Your task to perform on an android device: open app "Messages" Image 0: 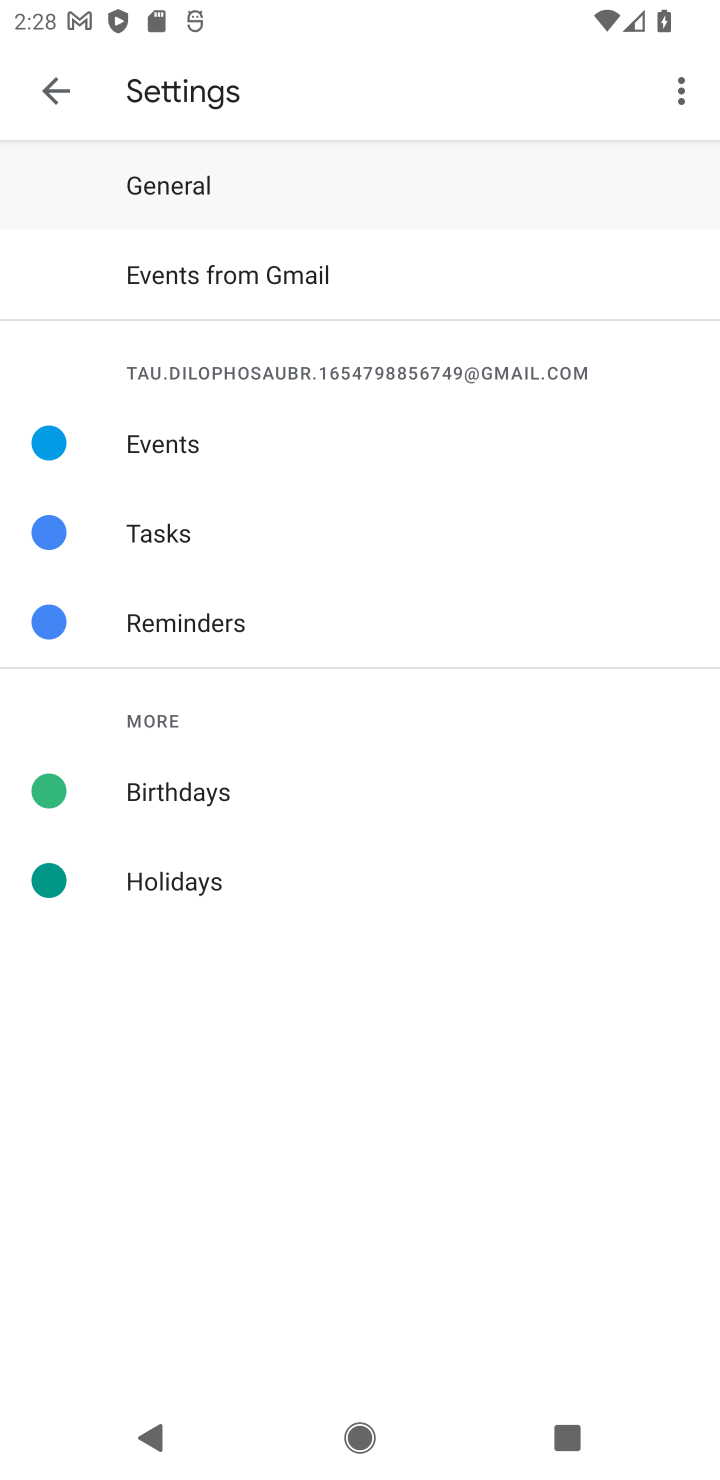
Step 0: press home button
Your task to perform on an android device: open app "Messages" Image 1: 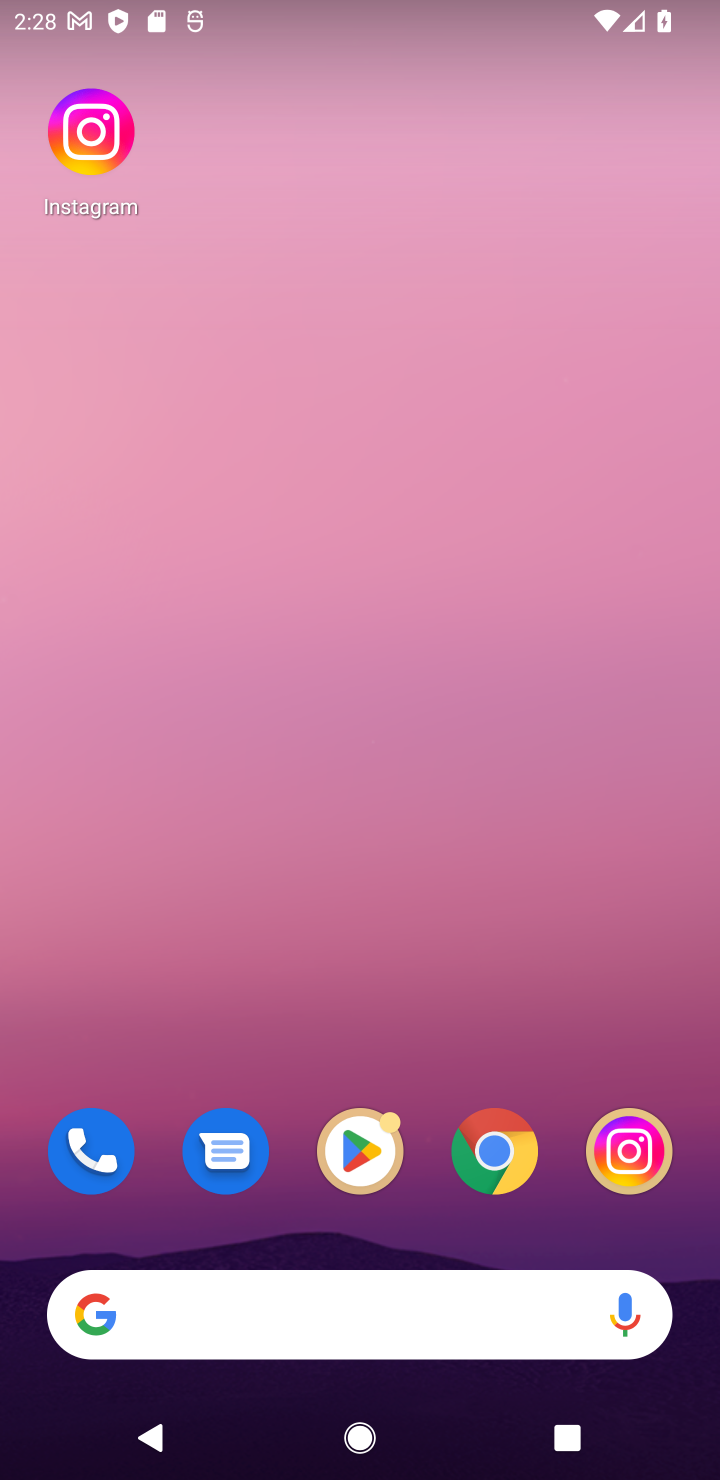
Step 1: click (369, 1154)
Your task to perform on an android device: open app "Messages" Image 2: 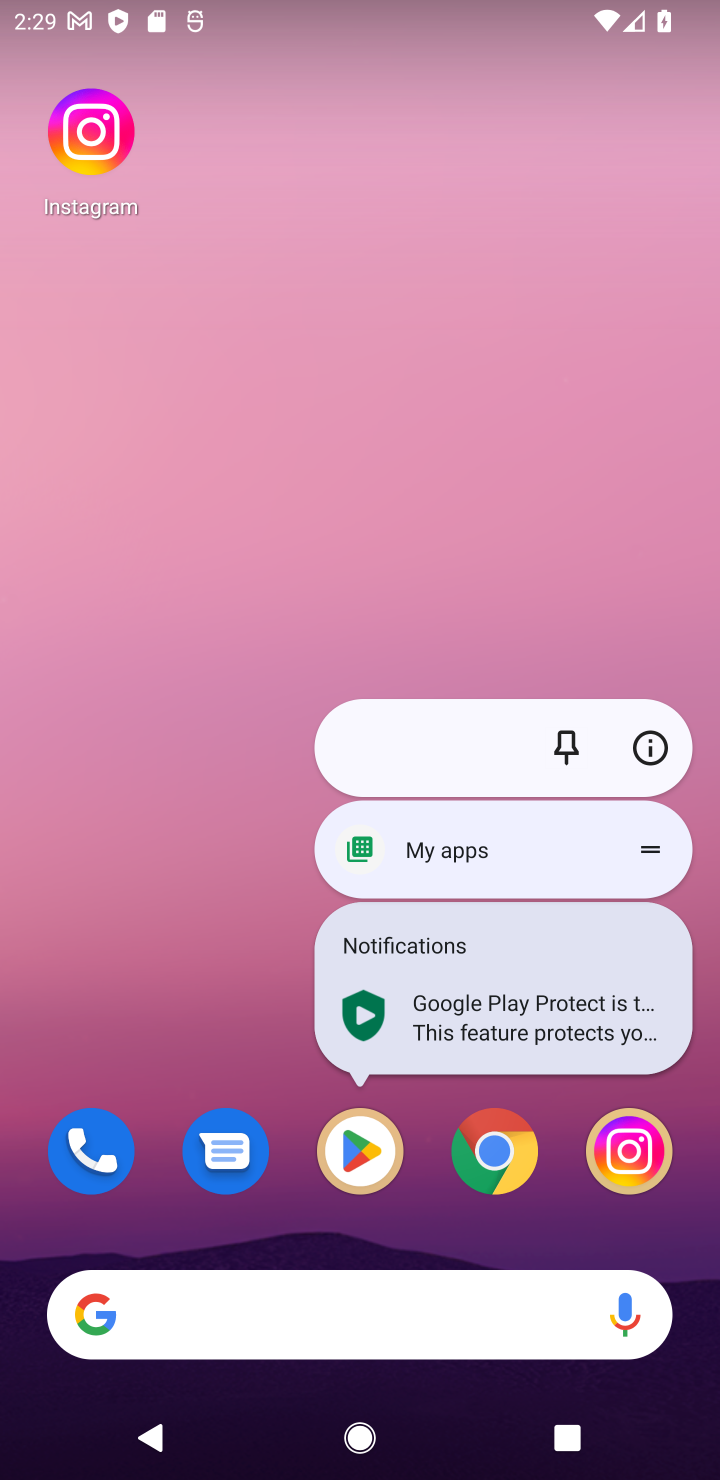
Step 2: click (365, 1154)
Your task to perform on an android device: open app "Messages" Image 3: 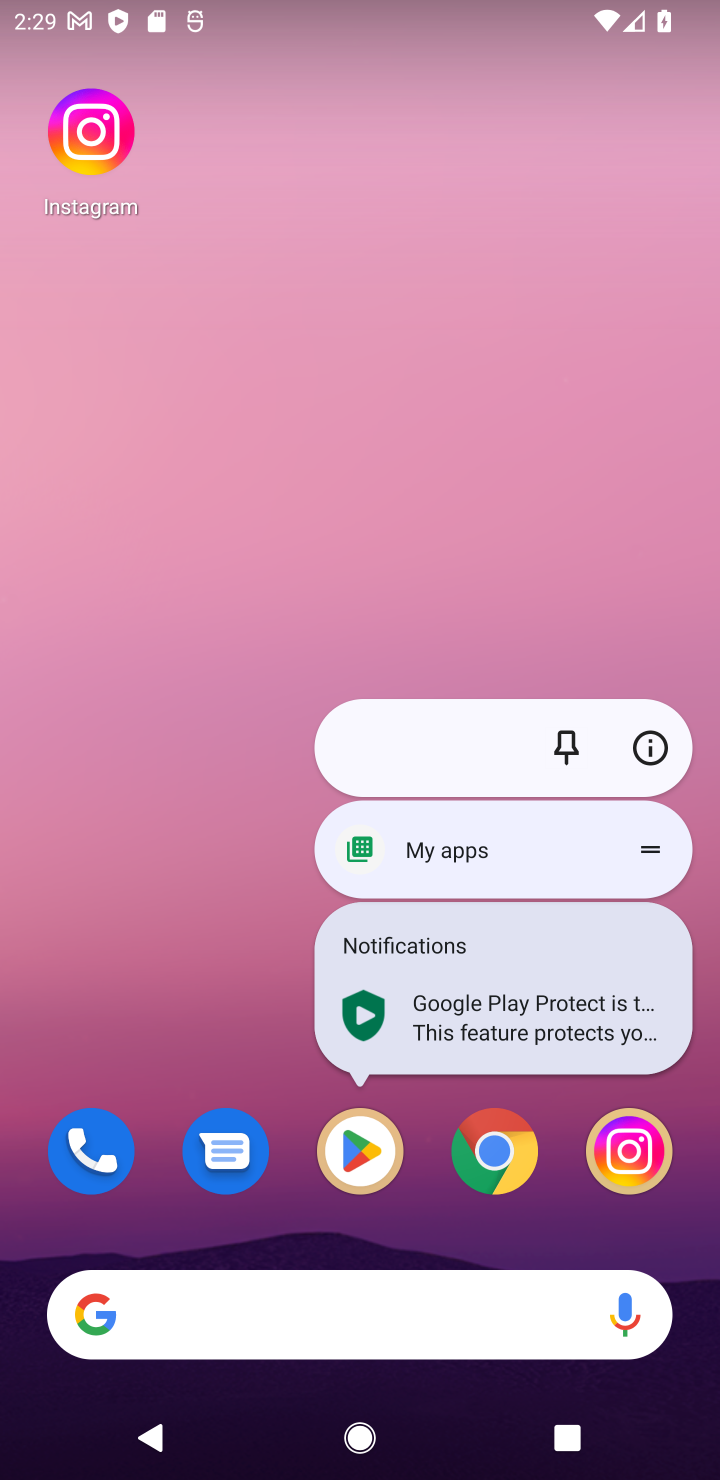
Step 3: click (365, 1159)
Your task to perform on an android device: open app "Messages" Image 4: 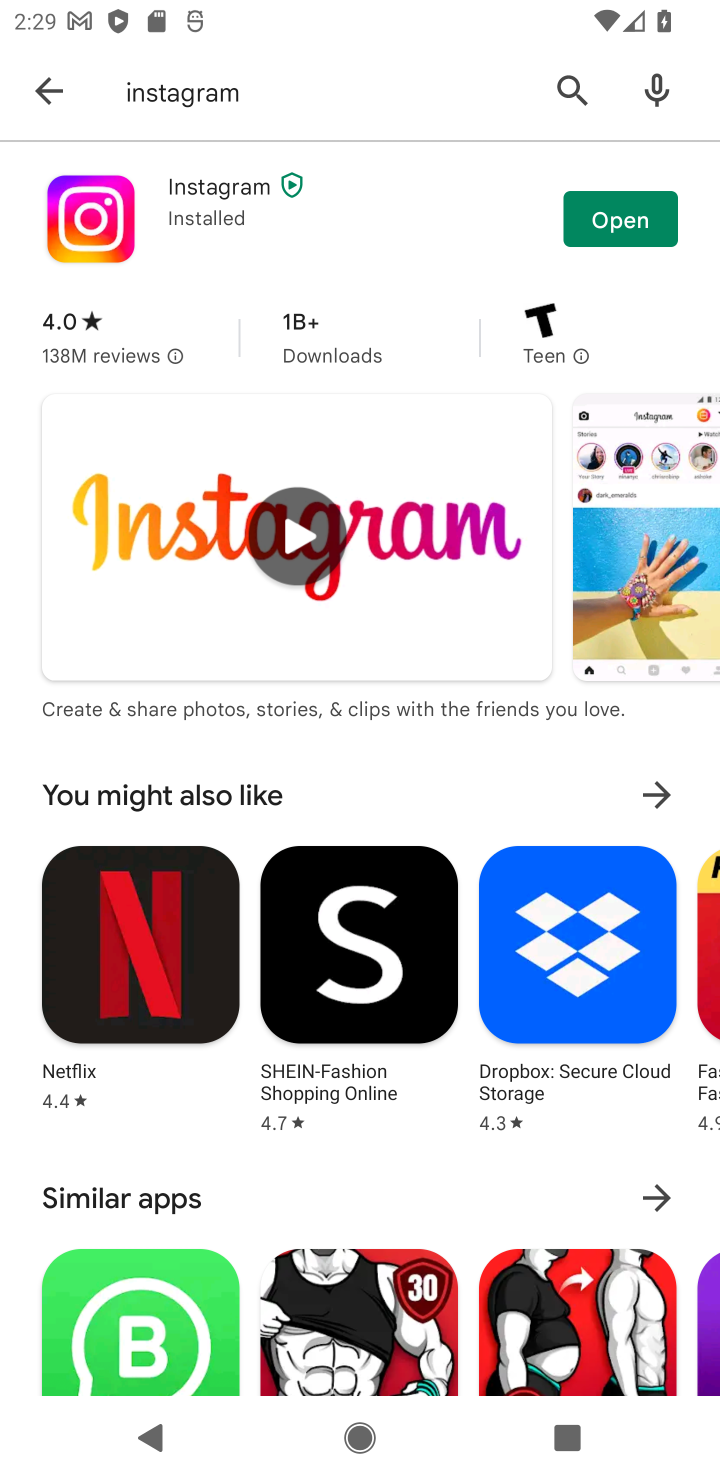
Step 4: click (565, 85)
Your task to perform on an android device: open app "Messages" Image 5: 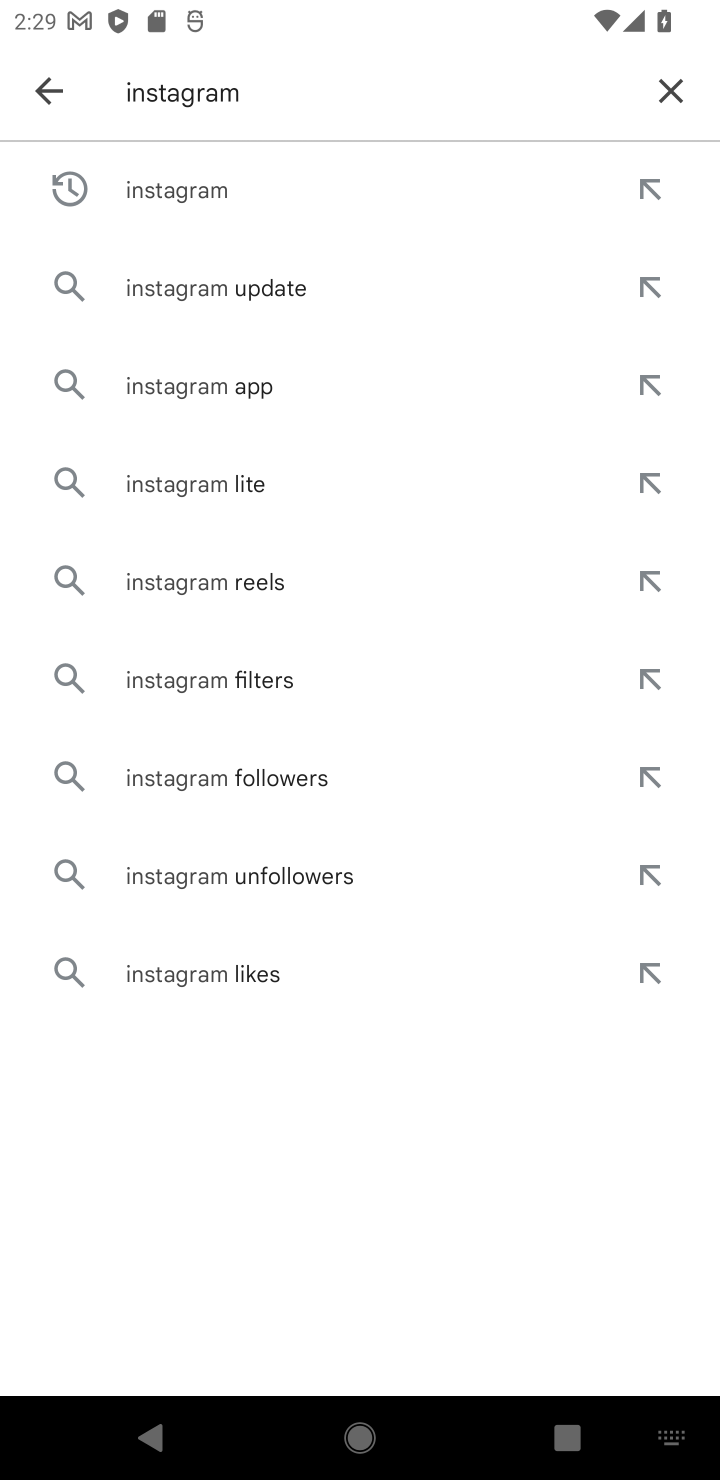
Step 5: click (673, 79)
Your task to perform on an android device: open app "Messages" Image 6: 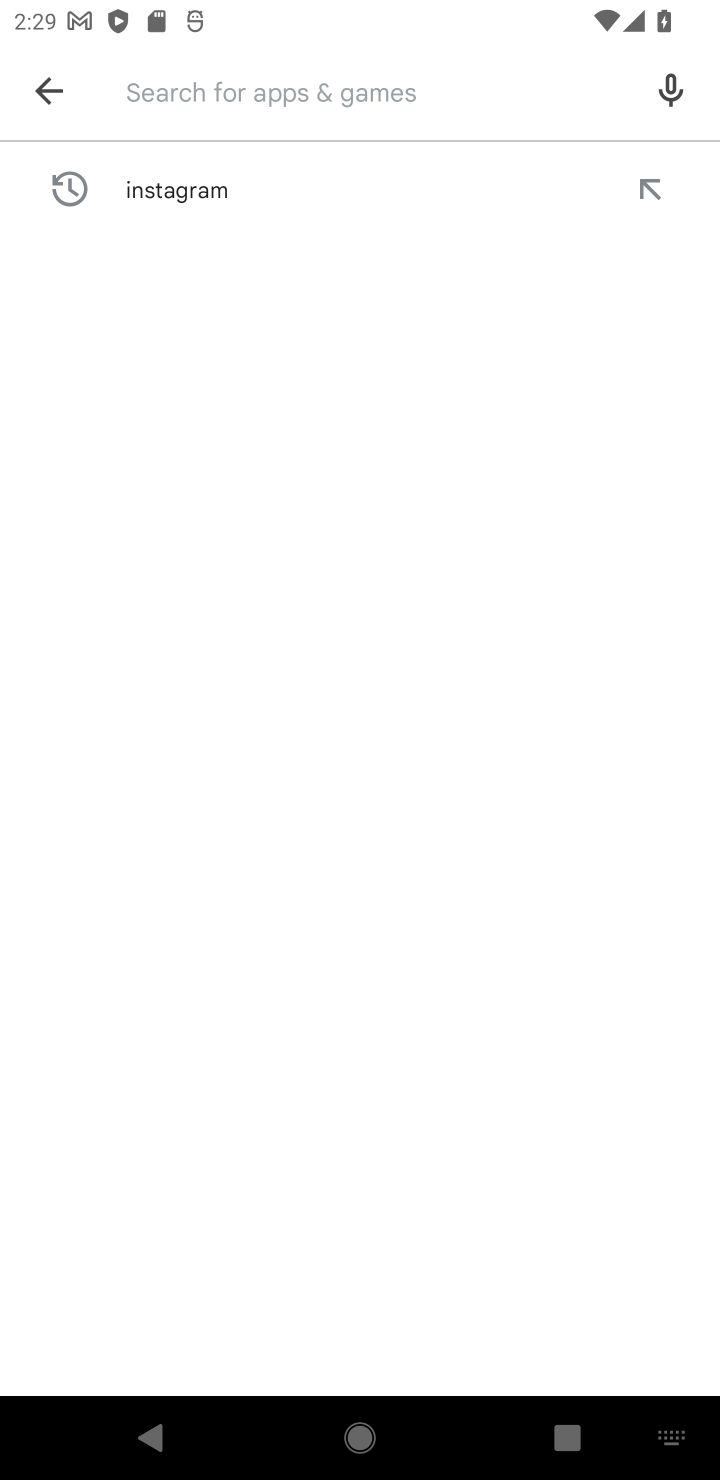
Step 6: type "Messages"
Your task to perform on an android device: open app "Messages" Image 7: 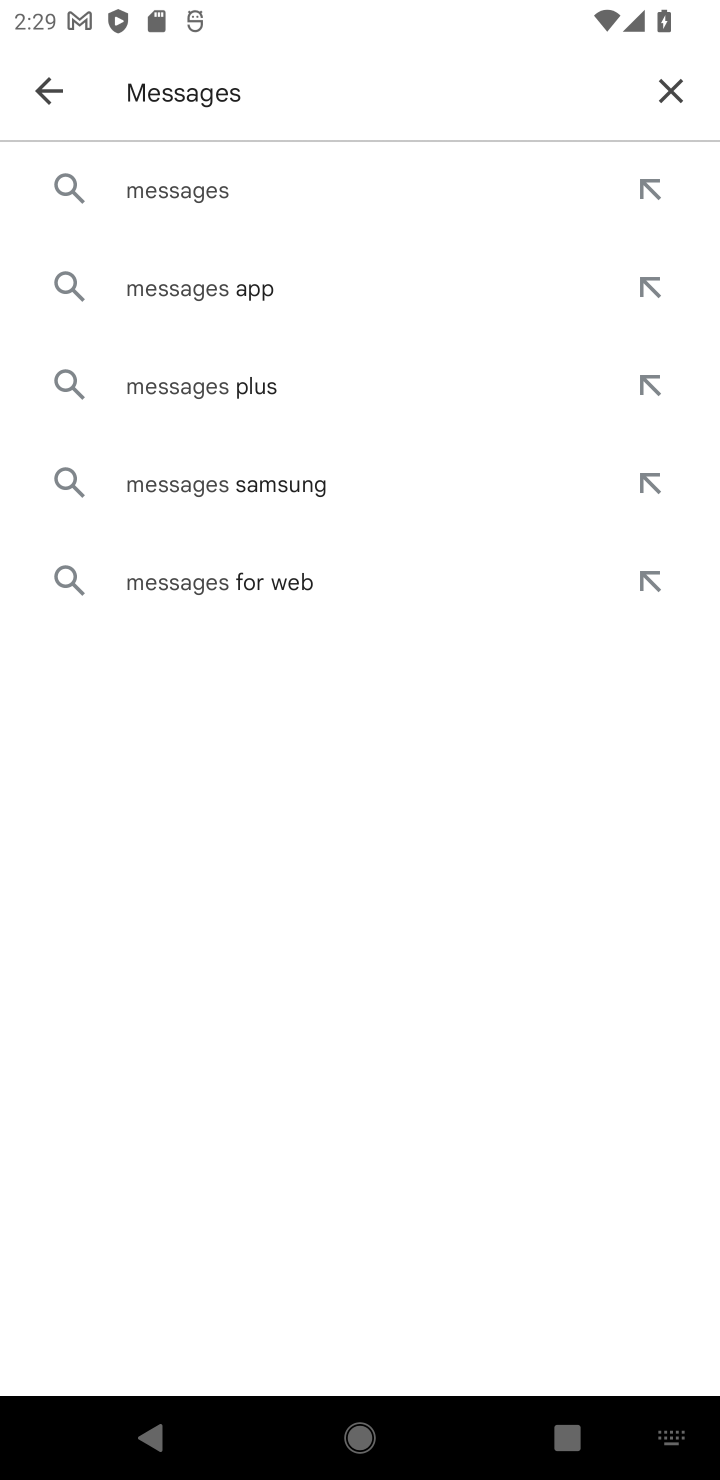
Step 7: click (183, 186)
Your task to perform on an android device: open app "Messages" Image 8: 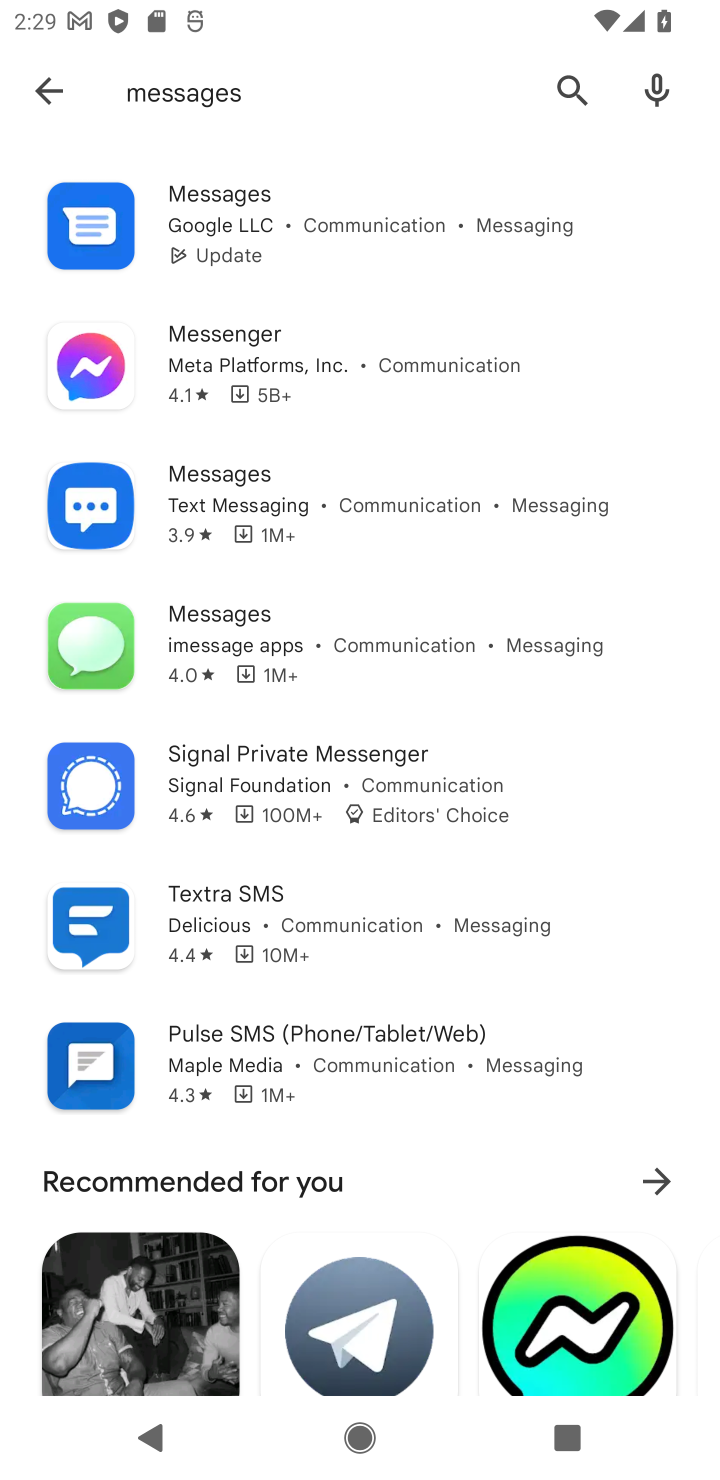
Step 8: click (266, 214)
Your task to perform on an android device: open app "Messages" Image 9: 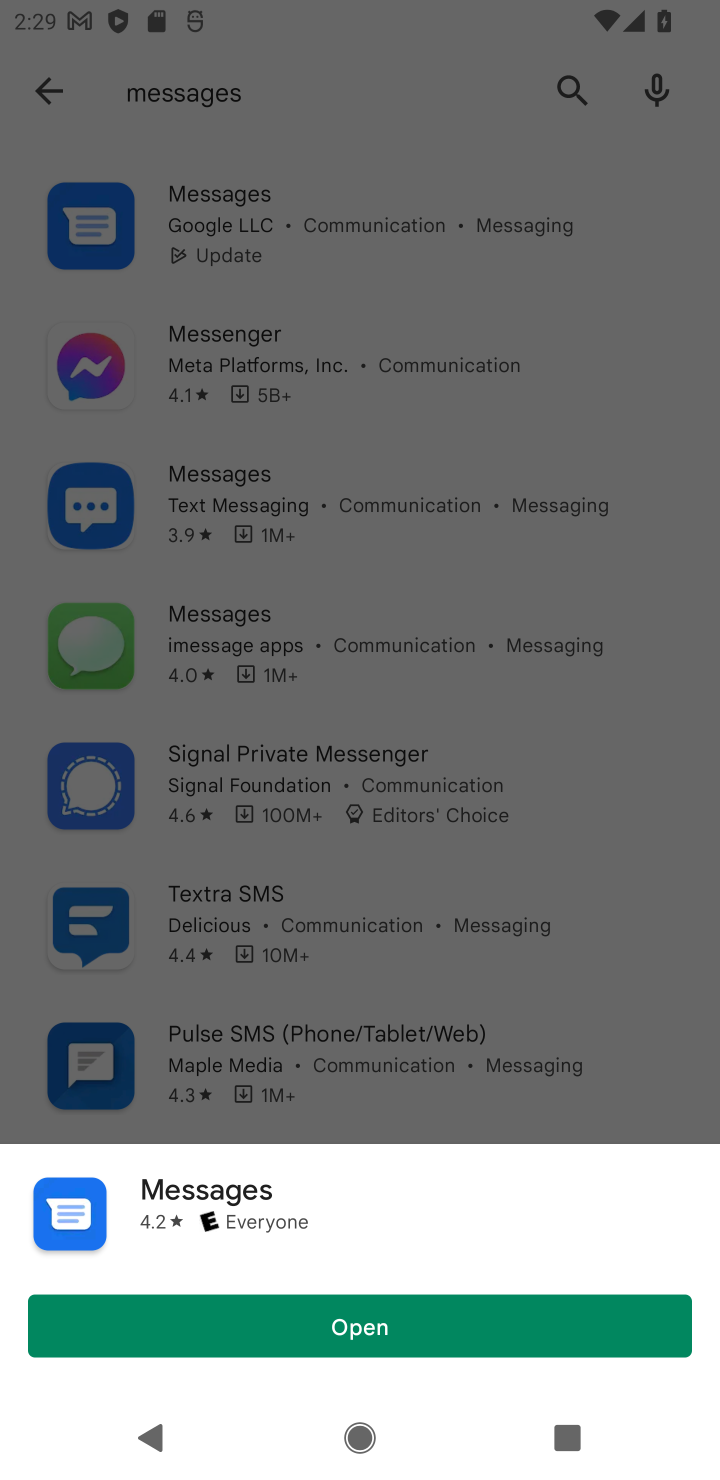
Step 9: click (347, 1333)
Your task to perform on an android device: open app "Messages" Image 10: 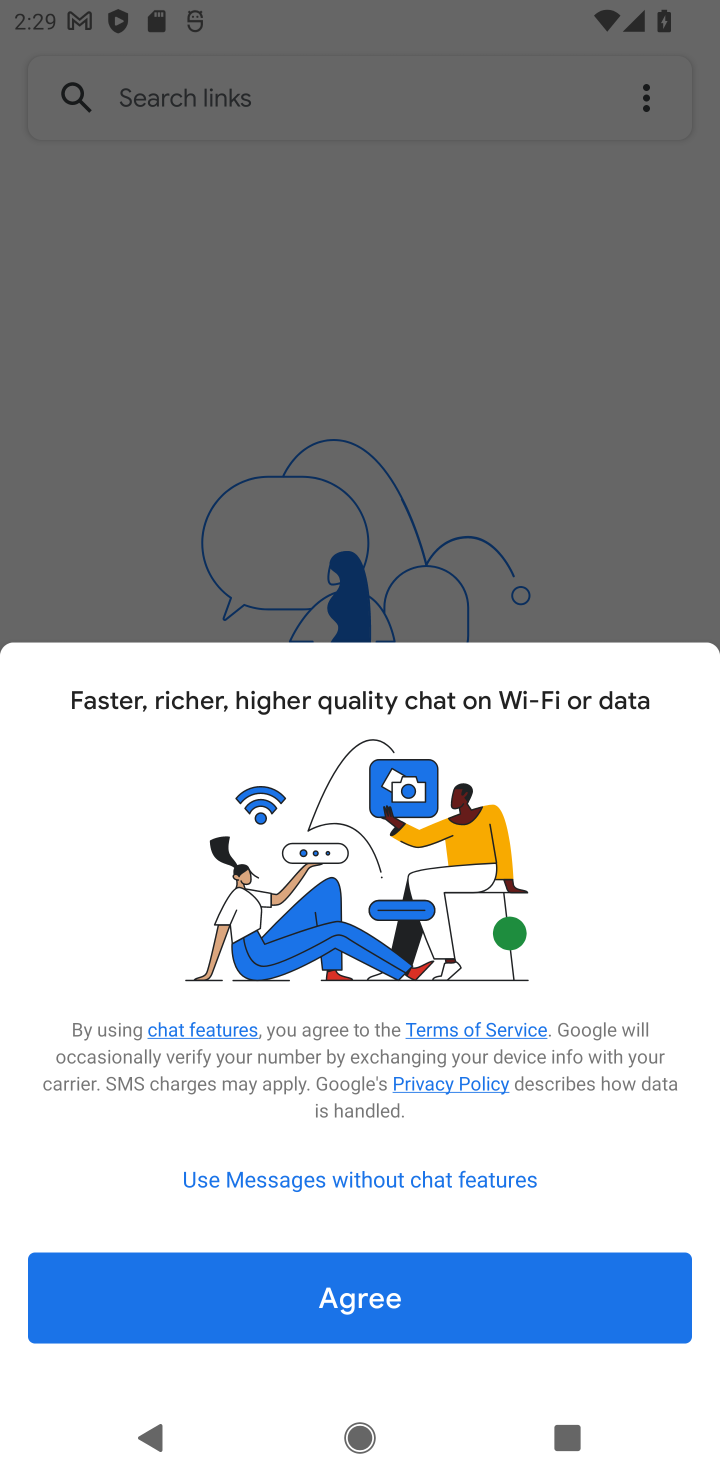
Step 10: click (355, 1289)
Your task to perform on an android device: open app "Messages" Image 11: 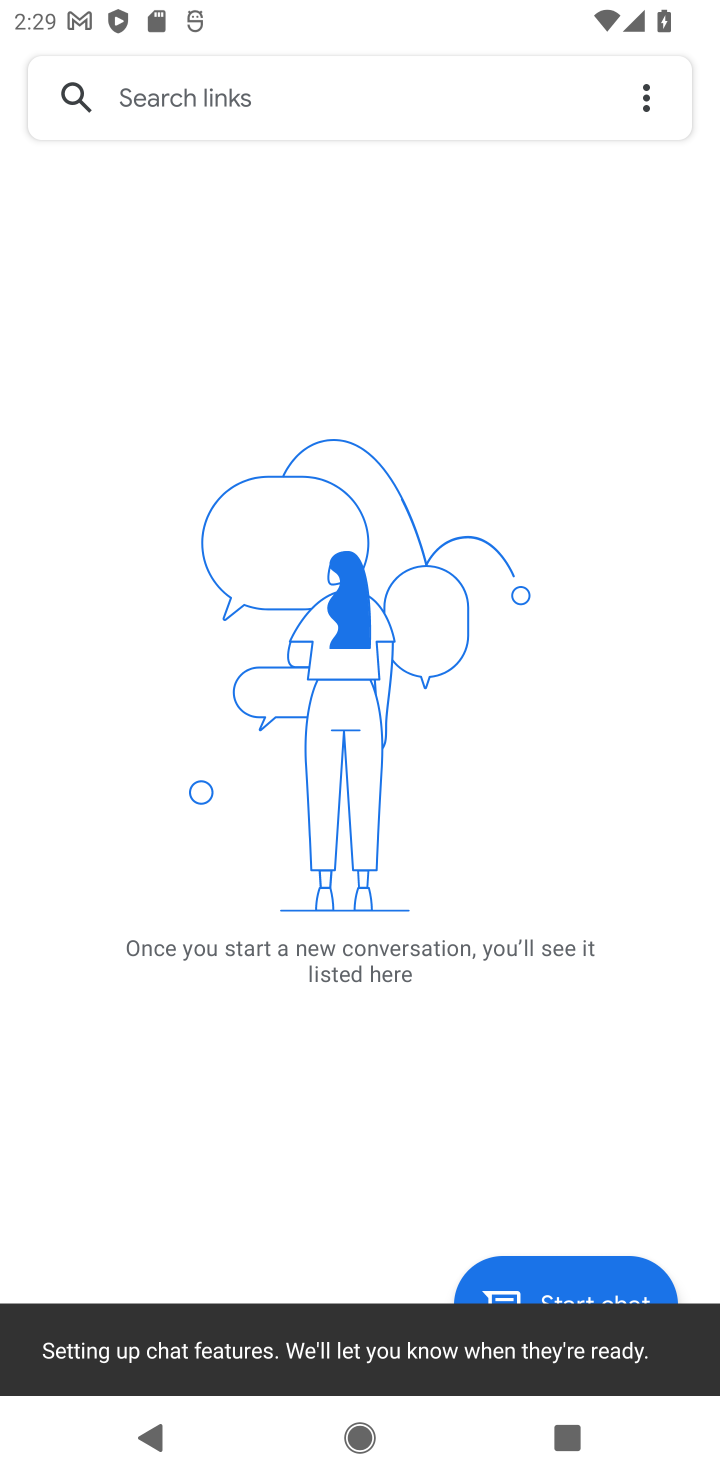
Step 11: task complete